Your task to perform on an android device: What's on my calendar today? Image 0: 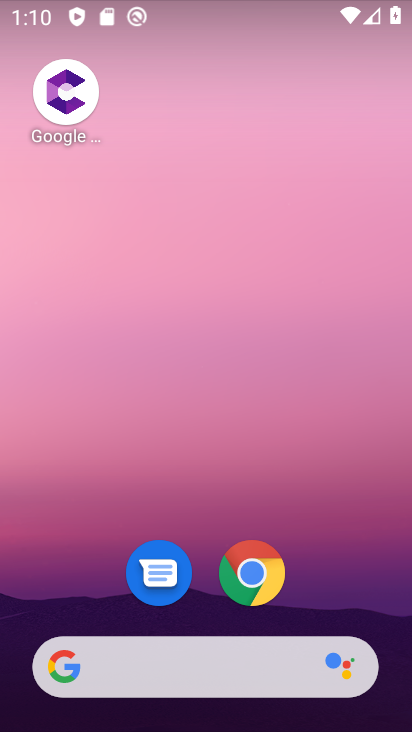
Step 0: drag from (390, 636) to (310, 255)
Your task to perform on an android device: What's on my calendar today? Image 1: 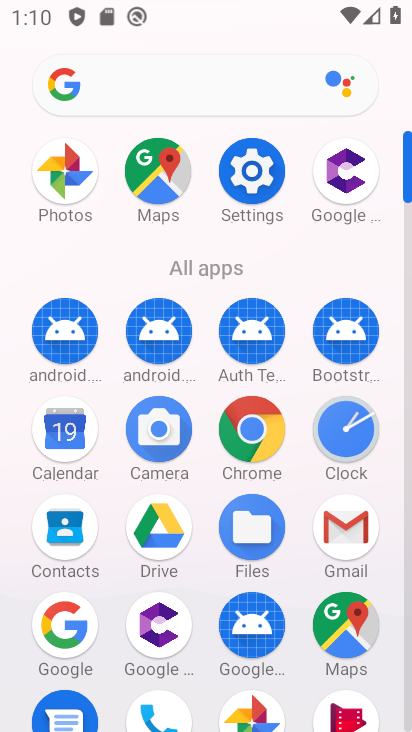
Step 1: click (276, 158)
Your task to perform on an android device: What's on my calendar today? Image 2: 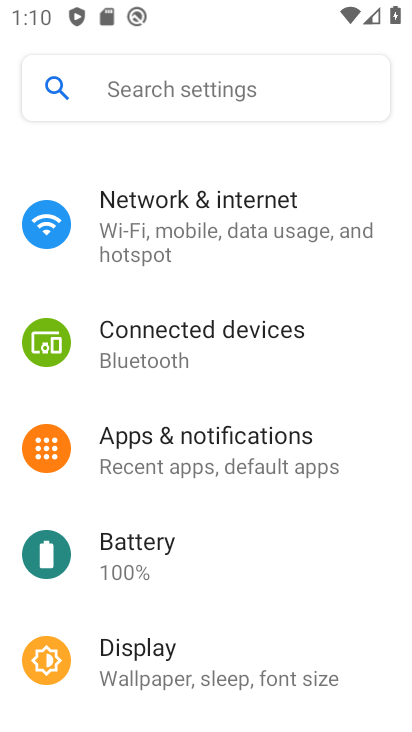
Step 2: click (143, 432)
Your task to perform on an android device: What's on my calendar today? Image 3: 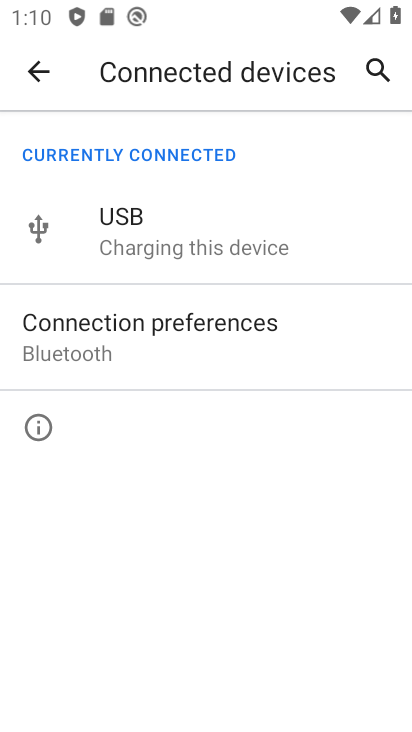
Step 3: click (37, 62)
Your task to perform on an android device: What's on my calendar today? Image 4: 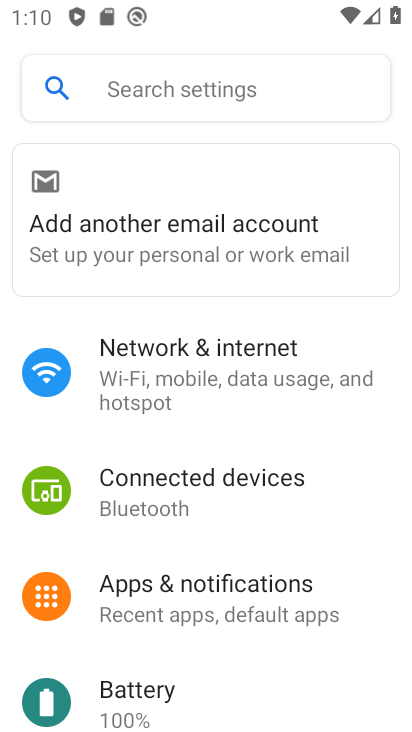
Step 4: click (157, 499)
Your task to perform on an android device: What's on my calendar today? Image 5: 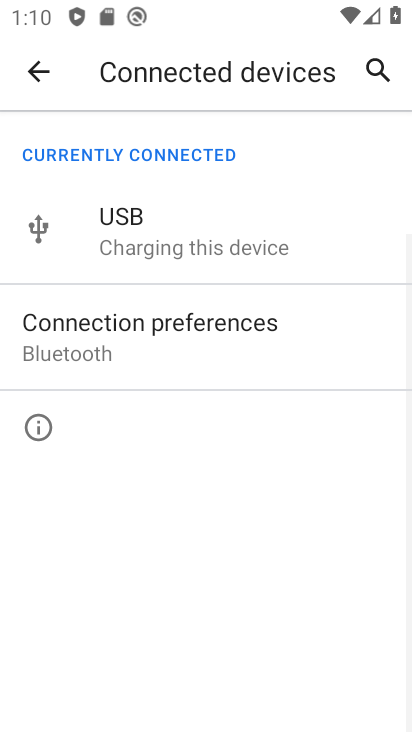
Step 5: press home button
Your task to perform on an android device: What's on my calendar today? Image 6: 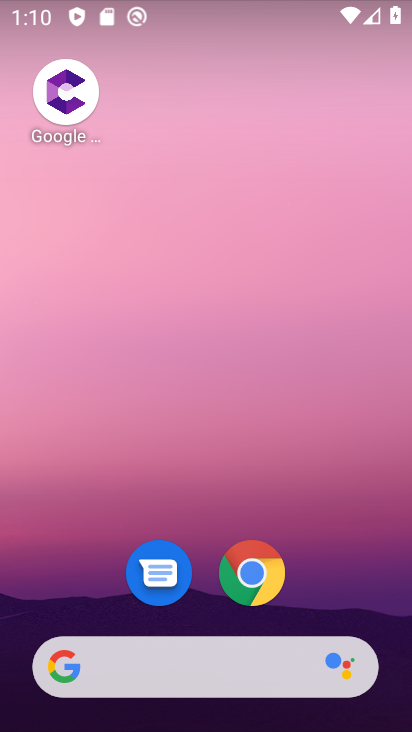
Step 6: drag from (365, 512) to (328, 140)
Your task to perform on an android device: What's on my calendar today? Image 7: 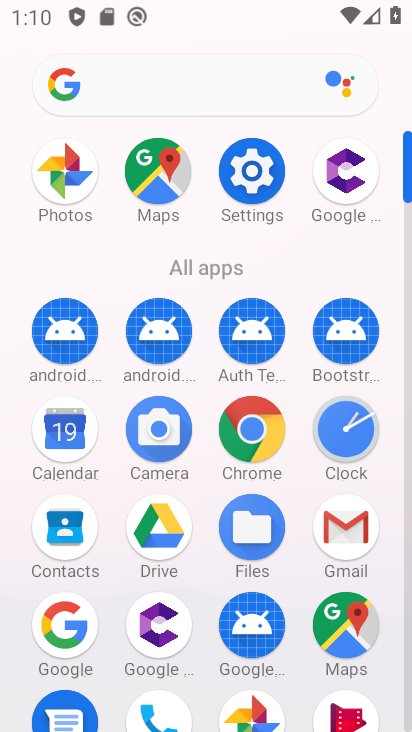
Step 7: drag from (219, 420) to (227, 720)
Your task to perform on an android device: What's on my calendar today? Image 8: 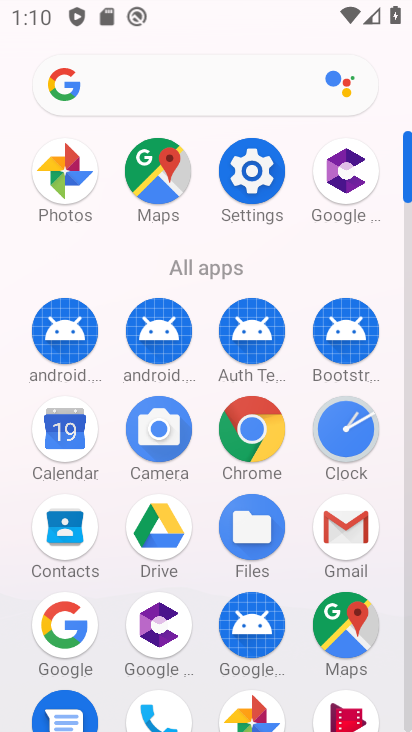
Step 8: click (61, 450)
Your task to perform on an android device: What's on my calendar today? Image 9: 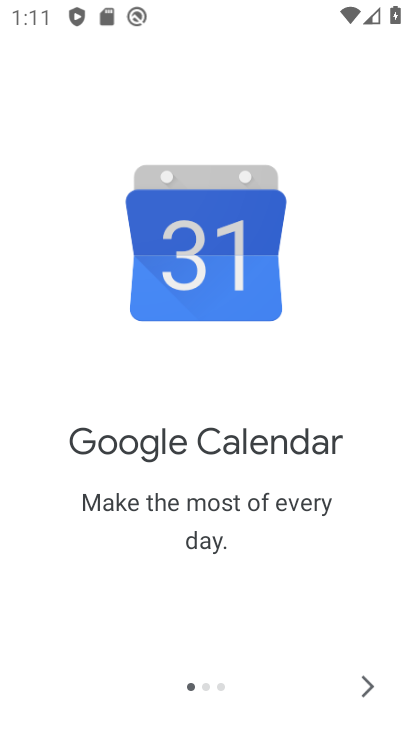
Step 9: click (368, 684)
Your task to perform on an android device: What's on my calendar today? Image 10: 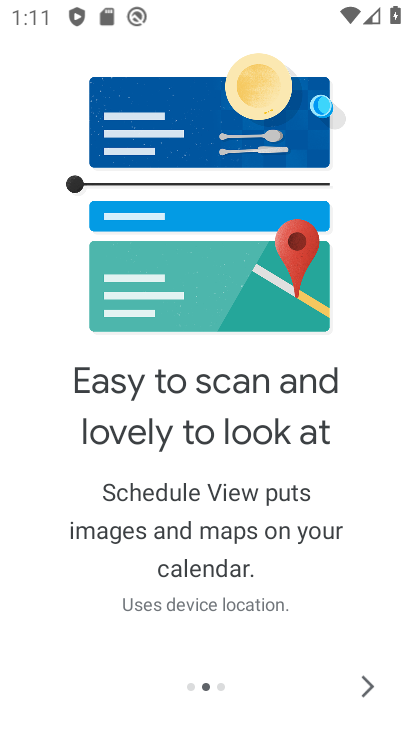
Step 10: click (368, 683)
Your task to perform on an android device: What's on my calendar today? Image 11: 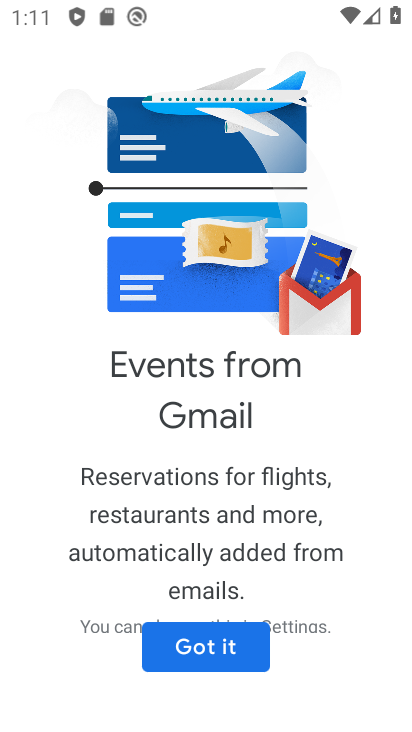
Step 11: click (211, 645)
Your task to perform on an android device: What's on my calendar today? Image 12: 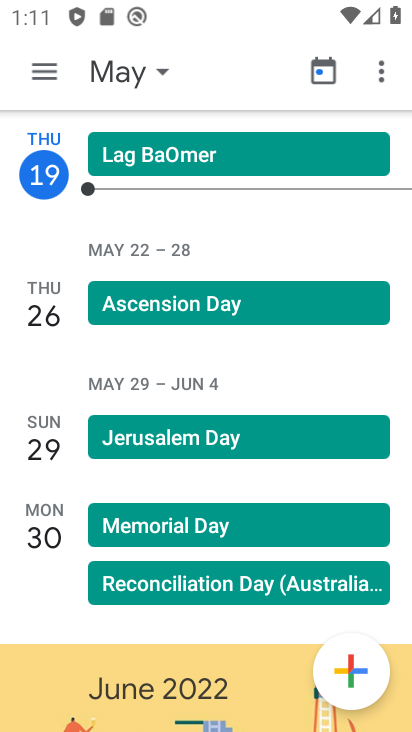
Step 12: task complete